Your task to perform on an android device: Open Google Maps and go to "Timeline" Image 0: 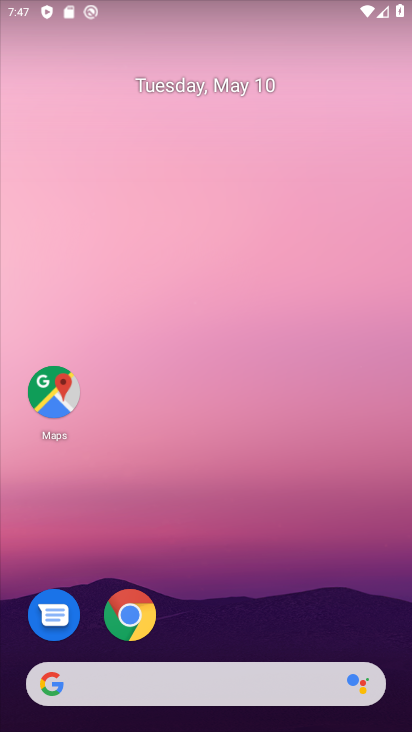
Step 0: click (210, 112)
Your task to perform on an android device: Open Google Maps and go to "Timeline" Image 1: 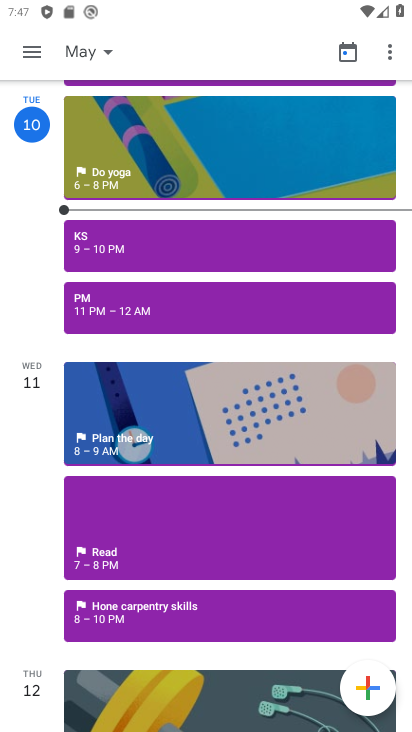
Step 1: drag from (226, 673) to (306, 286)
Your task to perform on an android device: Open Google Maps and go to "Timeline" Image 2: 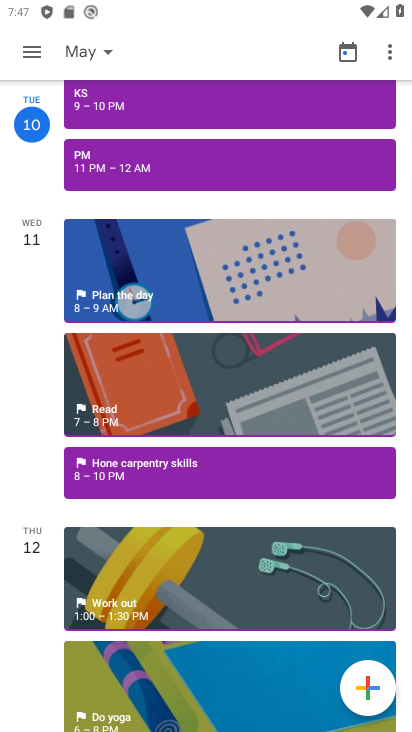
Step 2: press home button
Your task to perform on an android device: Open Google Maps and go to "Timeline" Image 3: 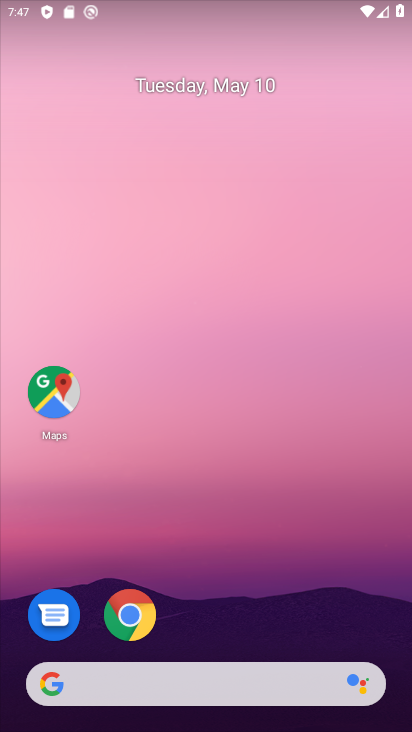
Step 3: drag from (194, 639) to (197, 594)
Your task to perform on an android device: Open Google Maps and go to "Timeline" Image 4: 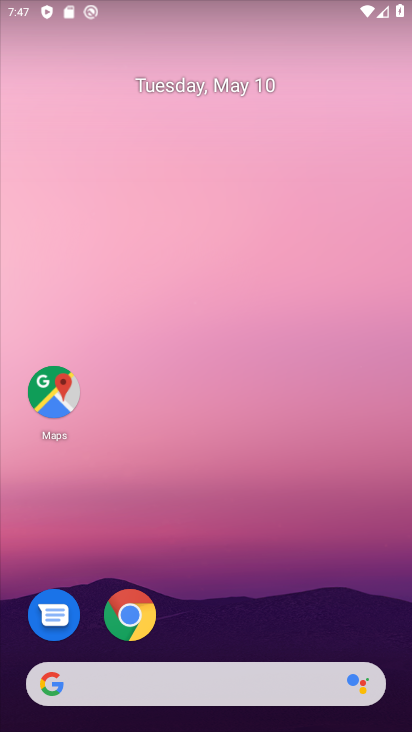
Step 4: click (46, 387)
Your task to perform on an android device: Open Google Maps and go to "Timeline" Image 5: 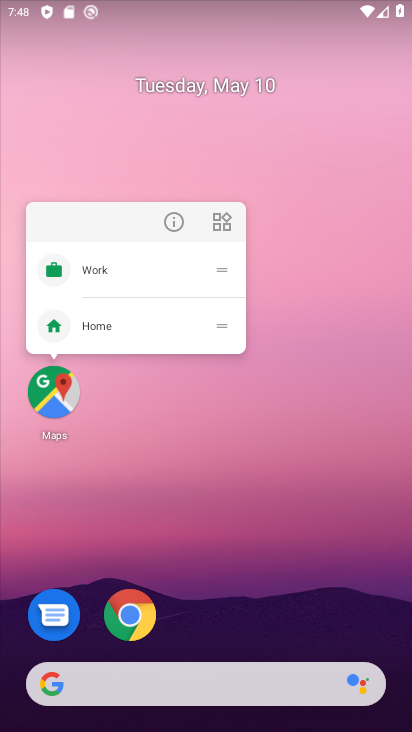
Step 5: click (171, 239)
Your task to perform on an android device: Open Google Maps and go to "Timeline" Image 6: 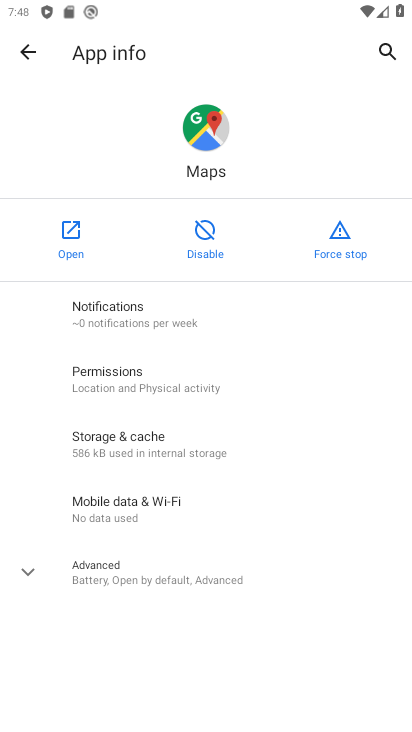
Step 6: click (64, 243)
Your task to perform on an android device: Open Google Maps and go to "Timeline" Image 7: 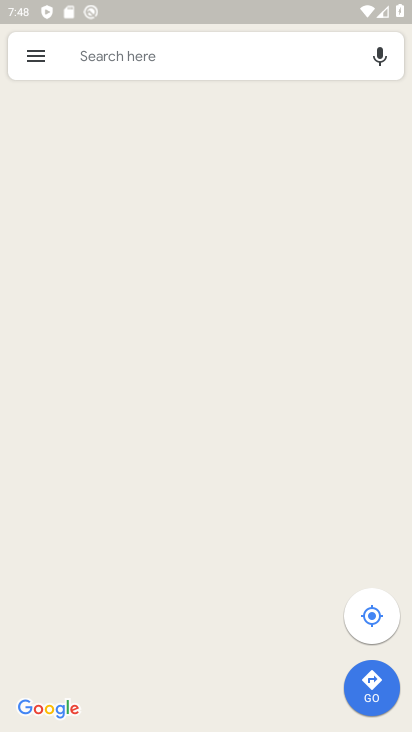
Step 7: click (47, 61)
Your task to perform on an android device: Open Google Maps and go to "Timeline" Image 8: 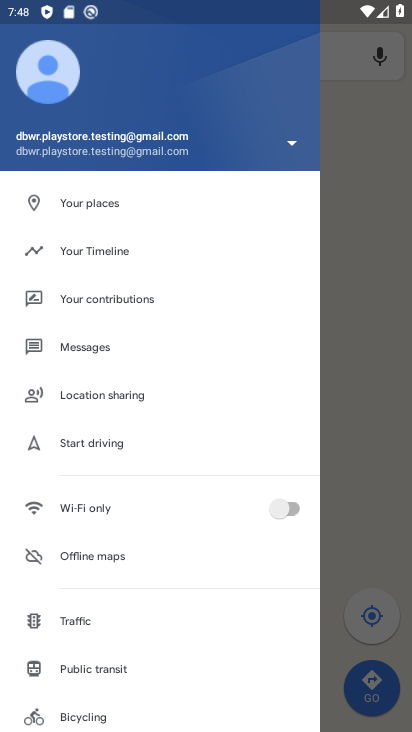
Step 8: click (121, 266)
Your task to perform on an android device: Open Google Maps and go to "Timeline" Image 9: 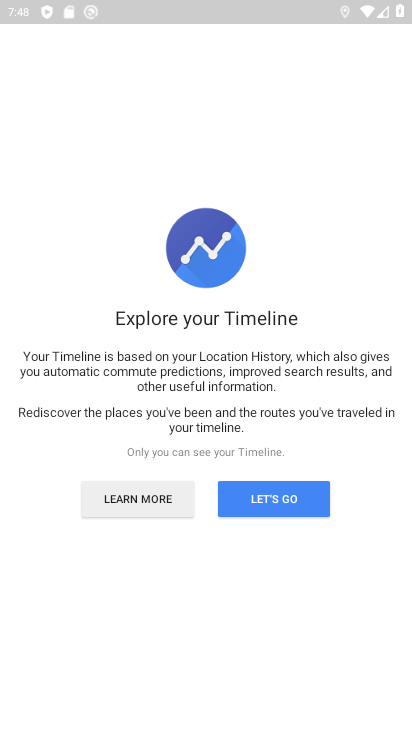
Step 9: drag from (189, 547) to (193, 253)
Your task to perform on an android device: Open Google Maps and go to "Timeline" Image 10: 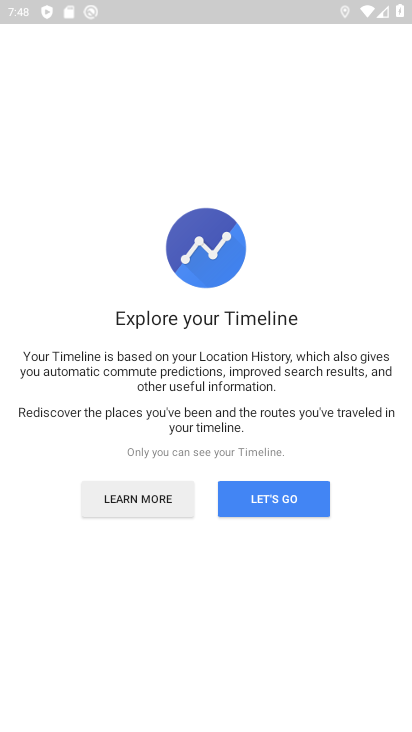
Step 10: click (285, 509)
Your task to perform on an android device: Open Google Maps and go to "Timeline" Image 11: 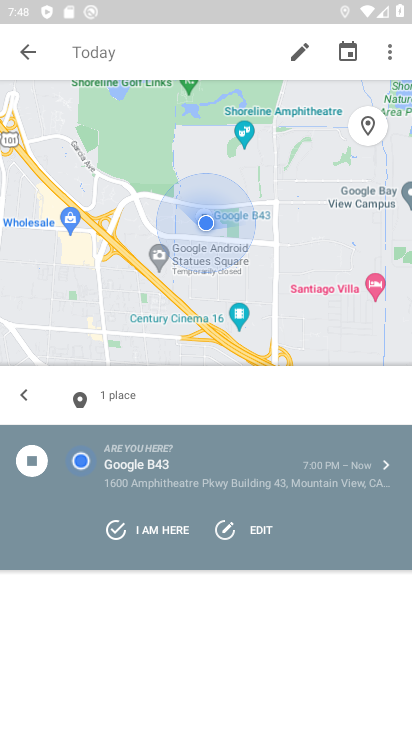
Step 11: task complete